Your task to perform on an android device: Open maps Image 0: 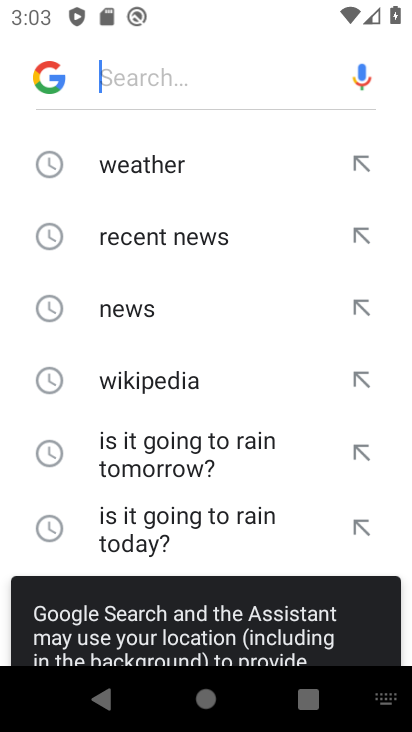
Step 0: press home button
Your task to perform on an android device: Open maps Image 1: 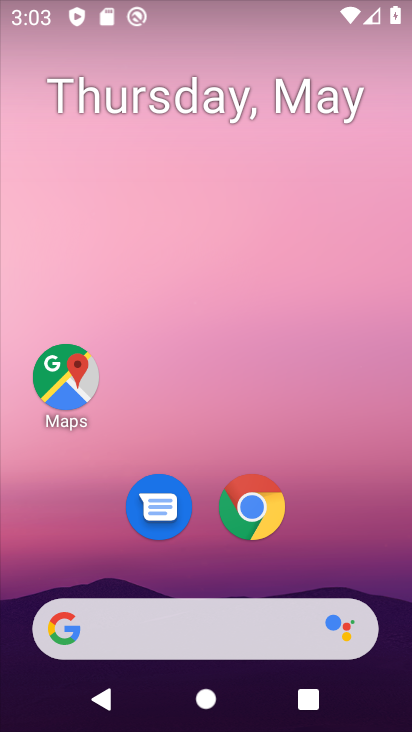
Step 1: click (58, 370)
Your task to perform on an android device: Open maps Image 2: 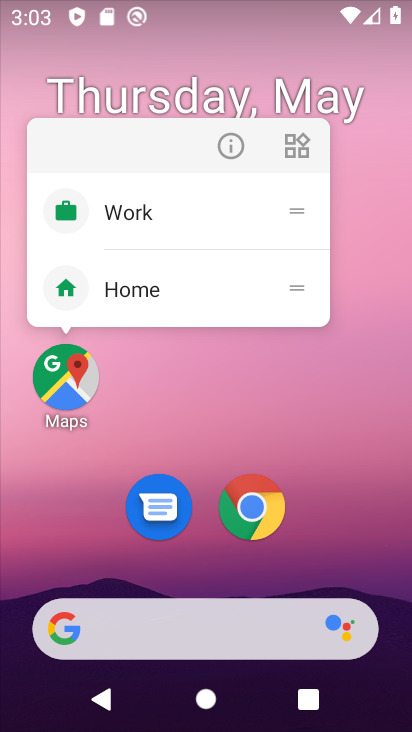
Step 2: click (57, 385)
Your task to perform on an android device: Open maps Image 3: 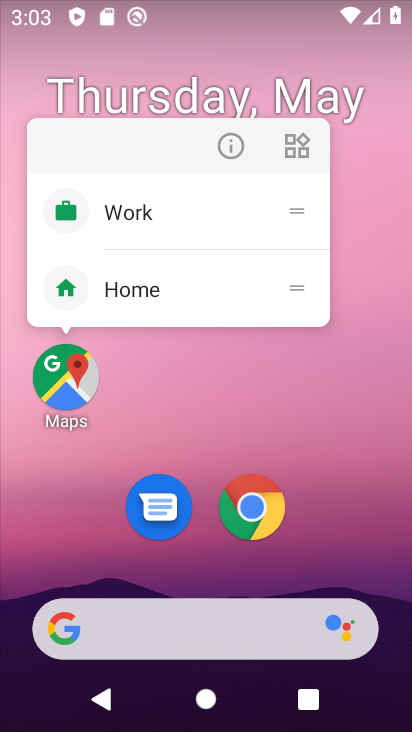
Step 3: click (307, 417)
Your task to perform on an android device: Open maps Image 4: 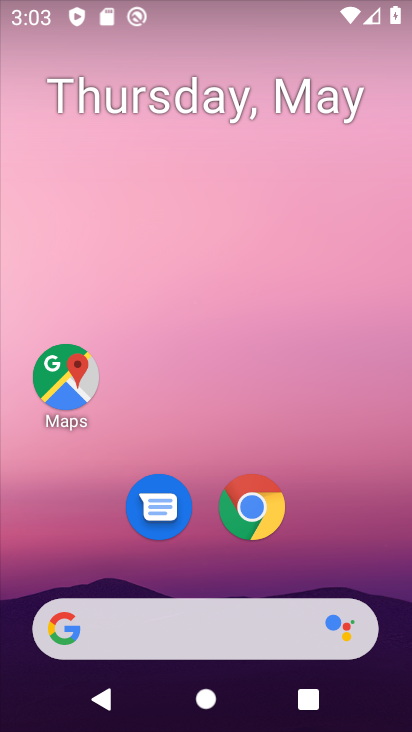
Step 4: drag from (233, 426) to (229, 63)
Your task to perform on an android device: Open maps Image 5: 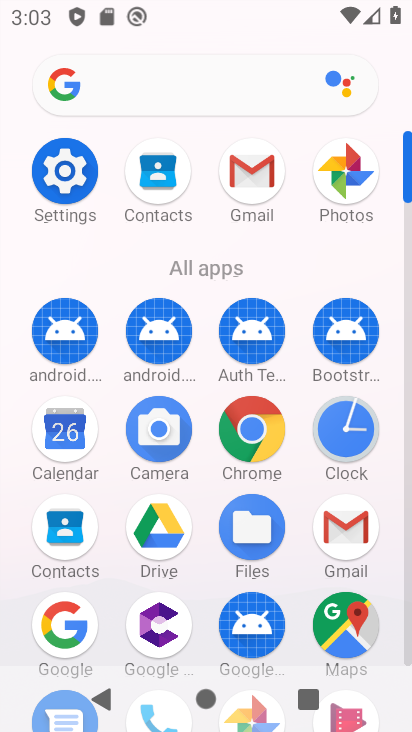
Step 5: click (339, 626)
Your task to perform on an android device: Open maps Image 6: 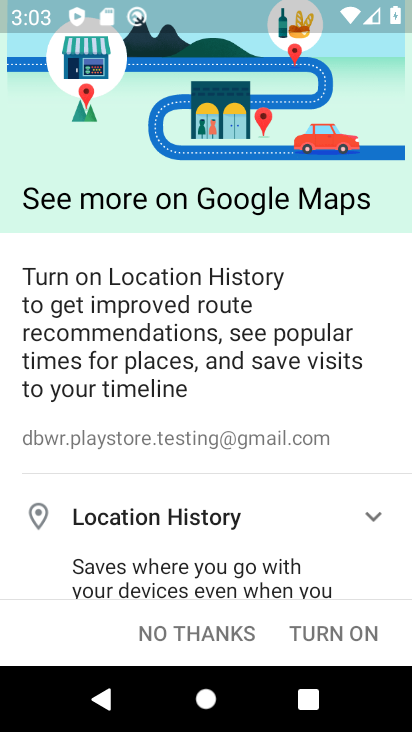
Step 6: click (208, 633)
Your task to perform on an android device: Open maps Image 7: 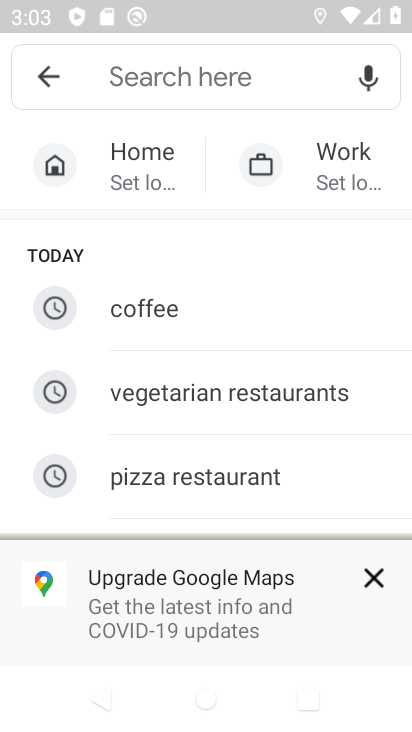
Step 7: click (366, 573)
Your task to perform on an android device: Open maps Image 8: 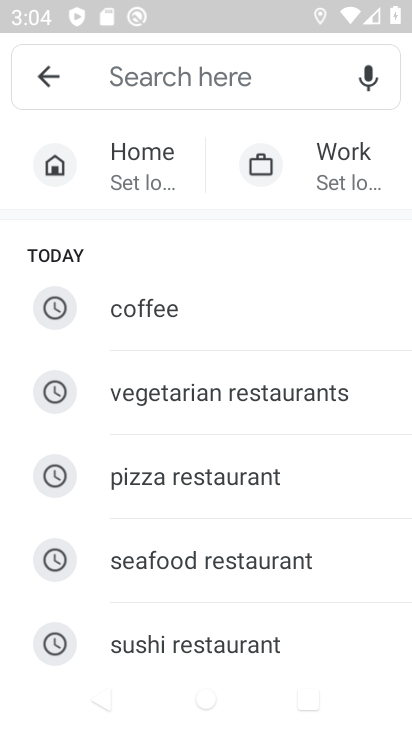
Step 8: click (41, 71)
Your task to perform on an android device: Open maps Image 9: 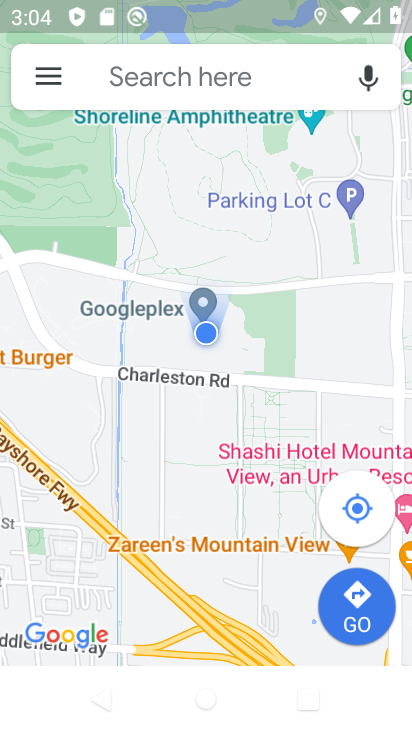
Step 9: task complete